Your task to perform on an android device: Open Chrome and go to the settings page Image 0: 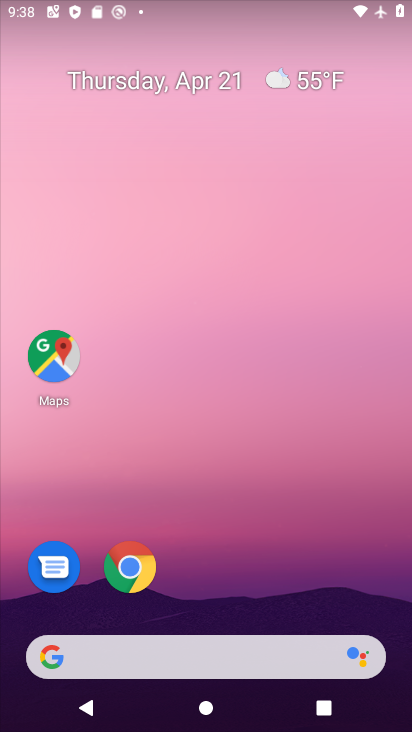
Step 0: click (132, 571)
Your task to perform on an android device: Open Chrome and go to the settings page Image 1: 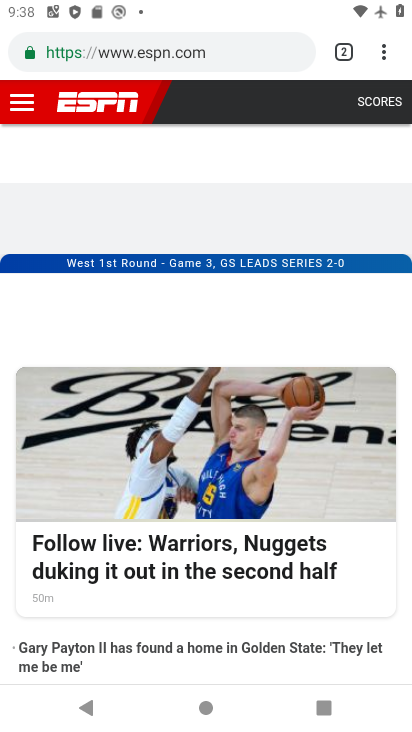
Step 1: click (384, 58)
Your task to perform on an android device: Open Chrome and go to the settings page Image 2: 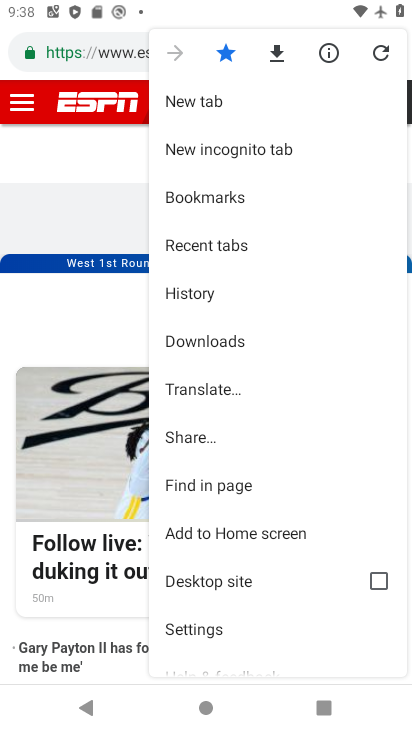
Step 2: click (204, 629)
Your task to perform on an android device: Open Chrome and go to the settings page Image 3: 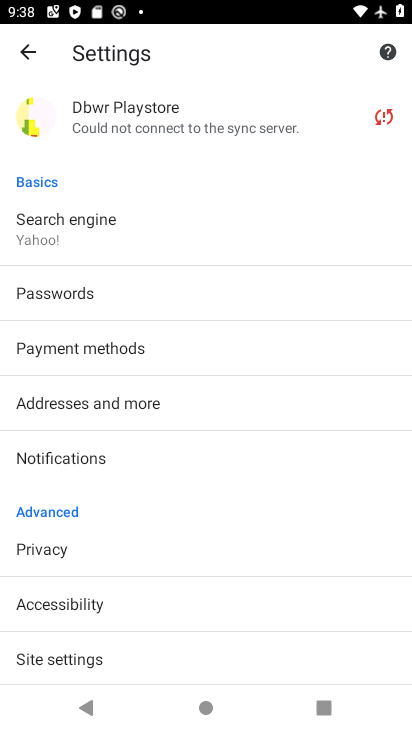
Step 3: task complete